Your task to perform on an android device: change timer sound Image 0: 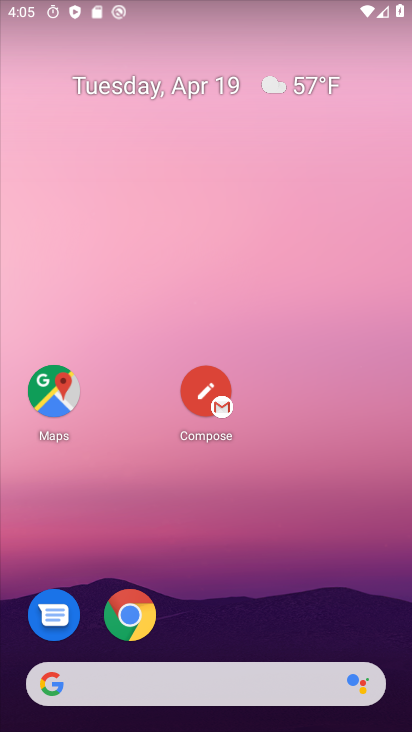
Step 0: drag from (240, 603) to (237, 70)
Your task to perform on an android device: change timer sound Image 1: 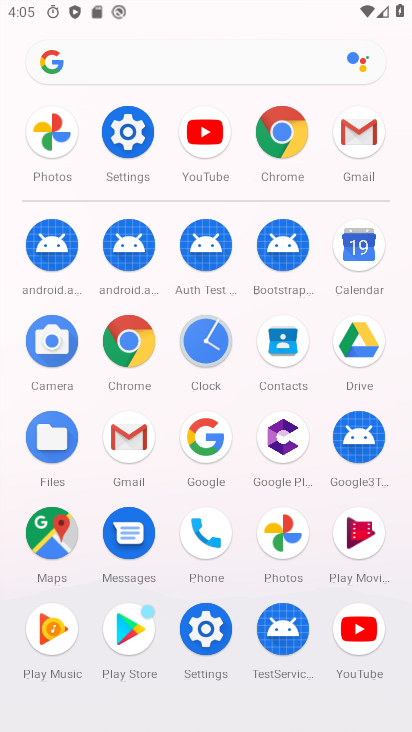
Step 1: click (209, 623)
Your task to perform on an android device: change timer sound Image 2: 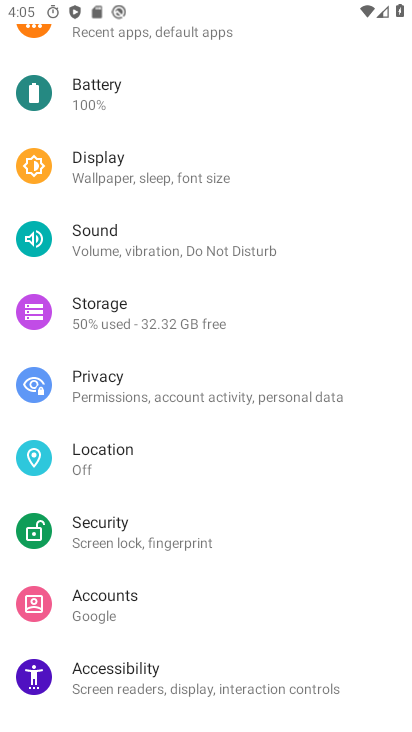
Step 2: press home button
Your task to perform on an android device: change timer sound Image 3: 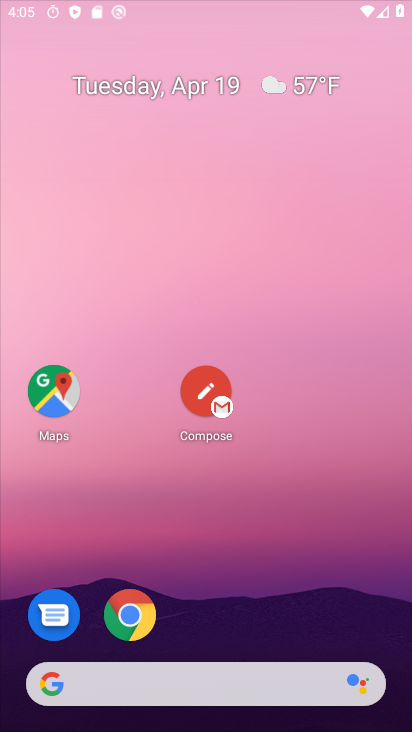
Step 3: drag from (189, 532) to (229, 3)
Your task to perform on an android device: change timer sound Image 4: 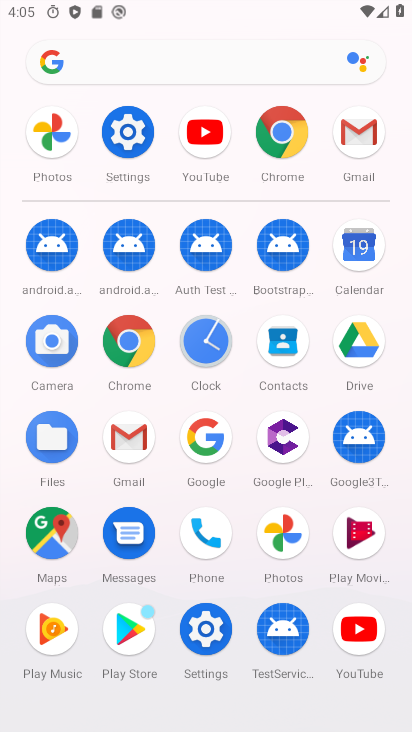
Step 4: click (217, 348)
Your task to perform on an android device: change timer sound Image 5: 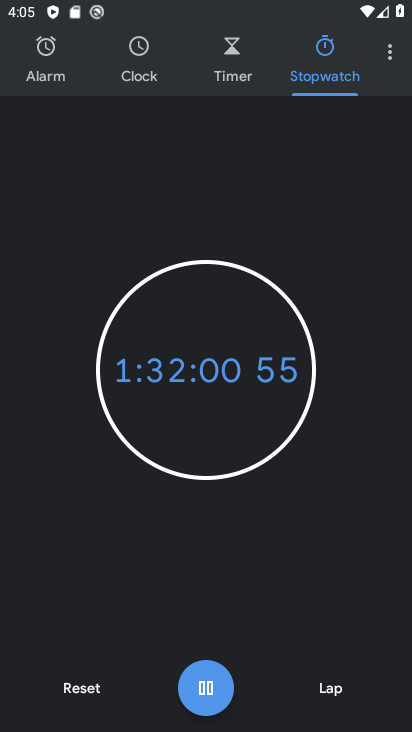
Step 5: click (391, 54)
Your task to perform on an android device: change timer sound Image 6: 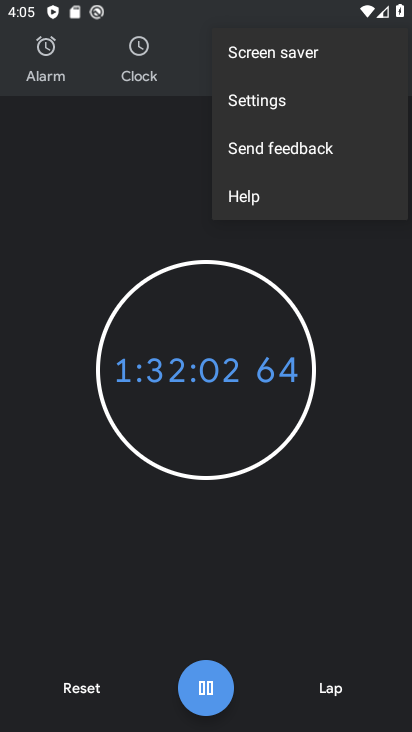
Step 6: click (303, 112)
Your task to perform on an android device: change timer sound Image 7: 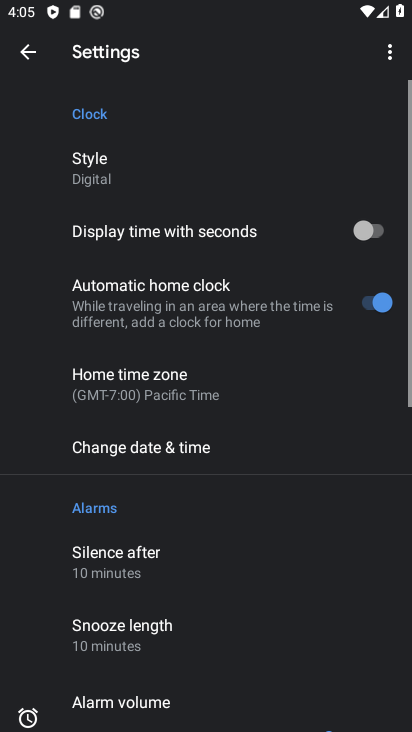
Step 7: drag from (287, 582) to (315, 29)
Your task to perform on an android device: change timer sound Image 8: 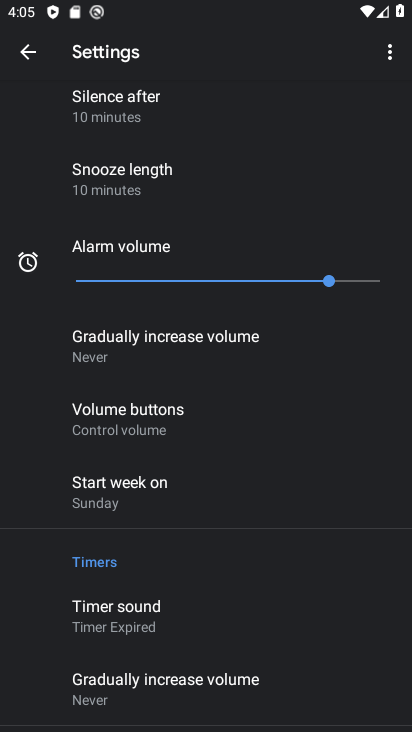
Step 8: click (178, 607)
Your task to perform on an android device: change timer sound Image 9: 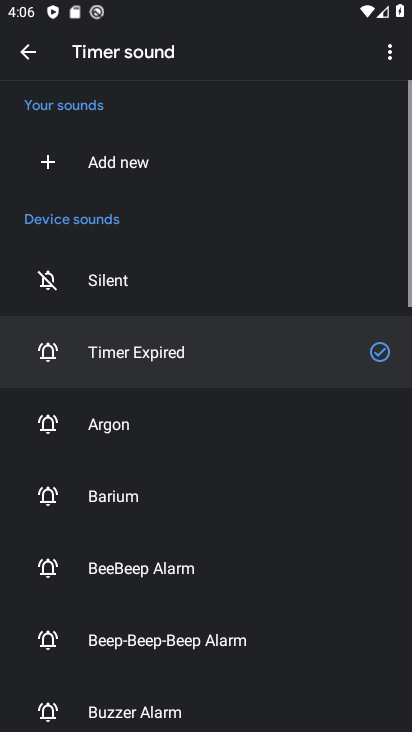
Step 9: click (190, 519)
Your task to perform on an android device: change timer sound Image 10: 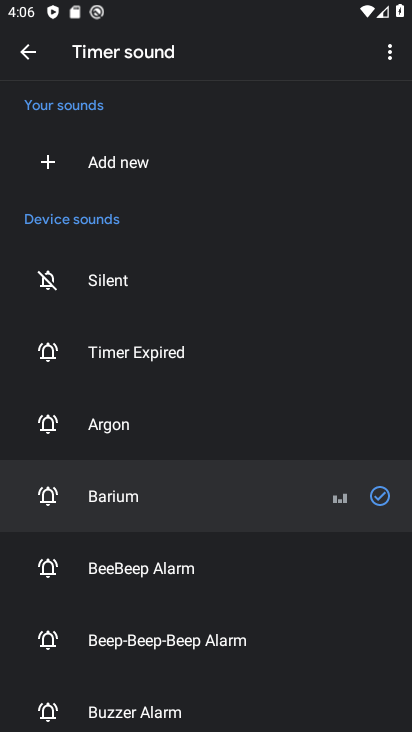
Step 10: task complete